Your task to perform on an android device: add a label to a message in the gmail app Image 0: 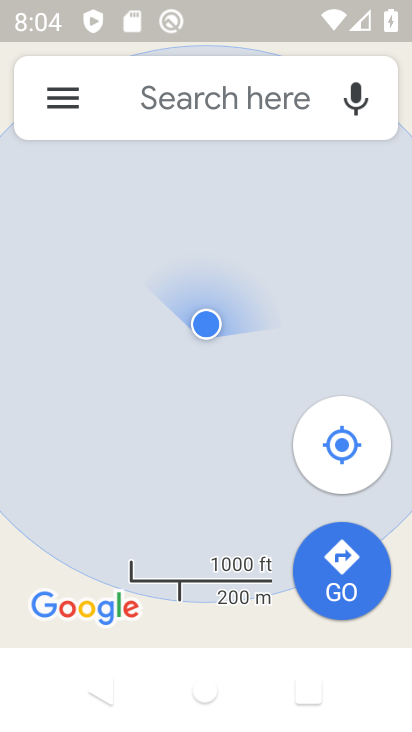
Step 0: press home button
Your task to perform on an android device: add a label to a message in the gmail app Image 1: 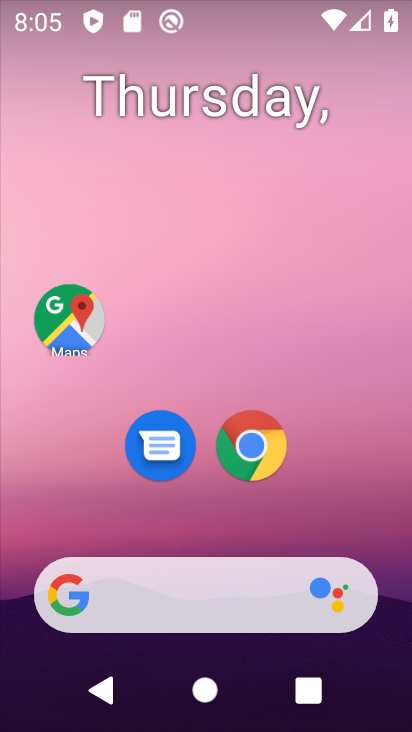
Step 1: drag from (378, 524) to (351, 8)
Your task to perform on an android device: add a label to a message in the gmail app Image 2: 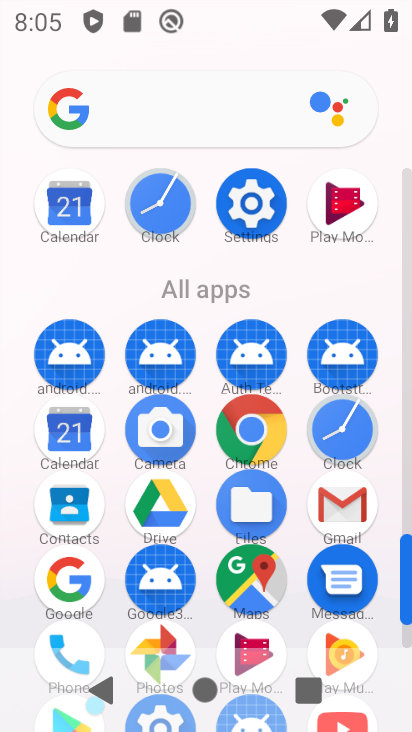
Step 2: click (334, 515)
Your task to perform on an android device: add a label to a message in the gmail app Image 3: 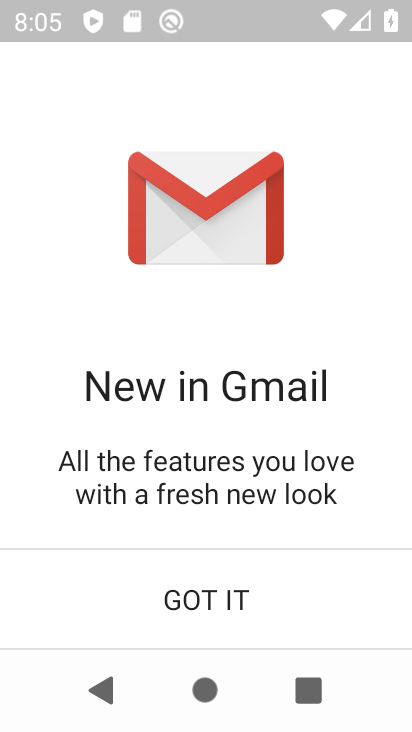
Step 3: click (227, 604)
Your task to perform on an android device: add a label to a message in the gmail app Image 4: 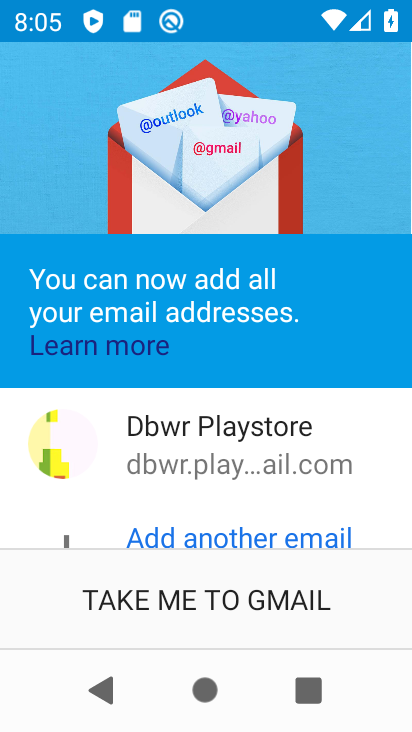
Step 4: click (207, 605)
Your task to perform on an android device: add a label to a message in the gmail app Image 5: 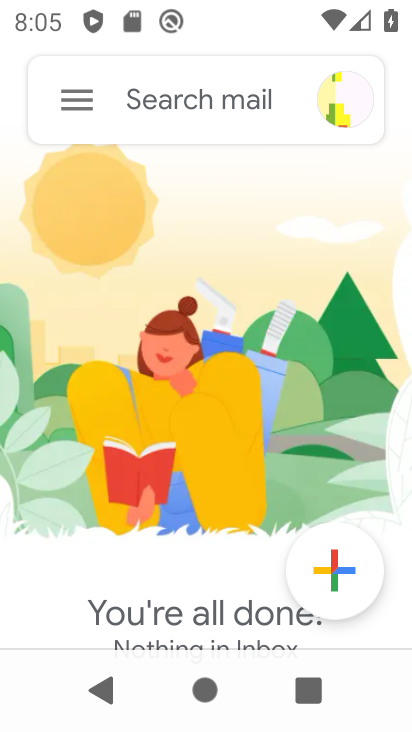
Step 5: click (78, 104)
Your task to perform on an android device: add a label to a message in the gmail app Image 6: 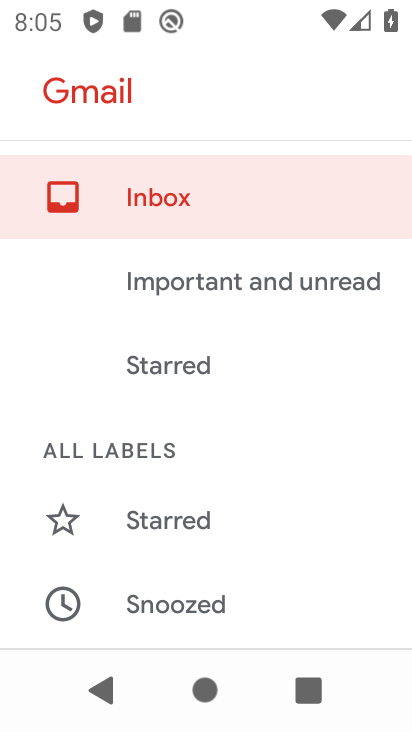
Step 6: drag from (252, 463) to (230, 75)
Your task to perform on an android device: add a label to a message in the gmail app Image 7: 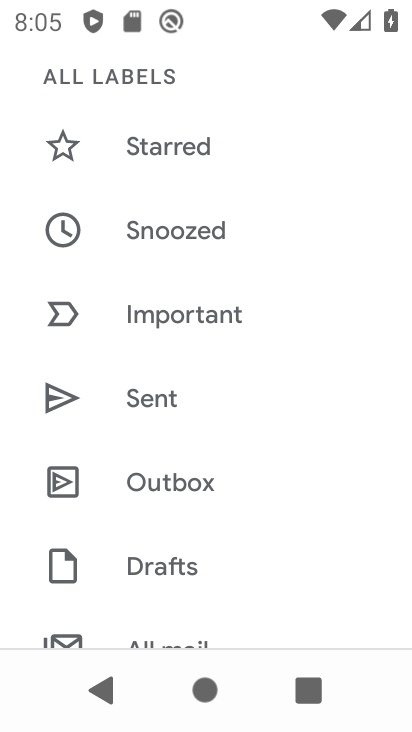
Step 7: drag from (244, 418) to (218, 114)
Your task to perform on an android device: add a label to a message in the gmail app Image 8: 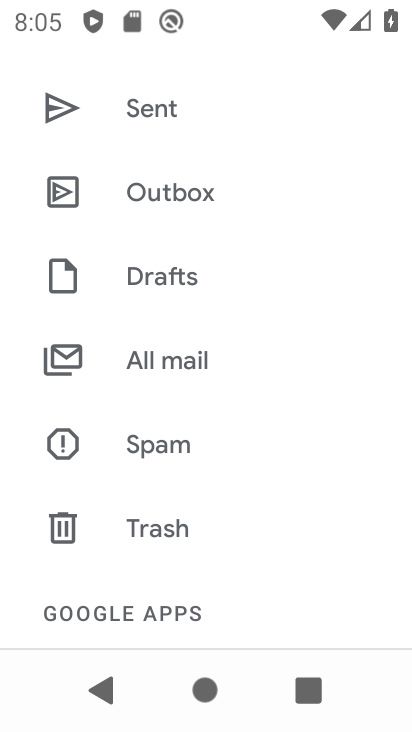
Step 8: click (134, 364)
Your task to perform on an android device: add a label to a message in the gmail app Image 9: 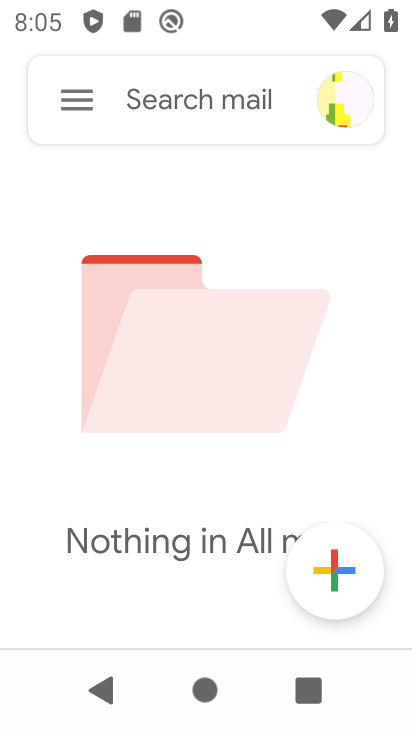
Step 9: task complete